Your task to perform on an android device: change your default location settings in chrome Image 0: 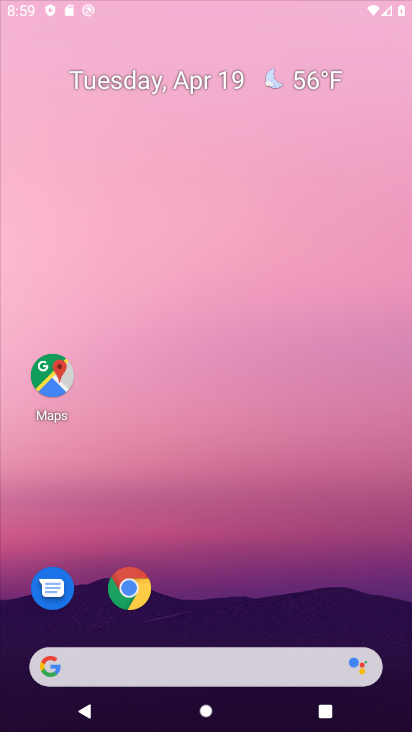
Step 0: drag from (295, 36) to (272, 63)
Your task to perform on an android device: change your default location settings in chrome Image 1: 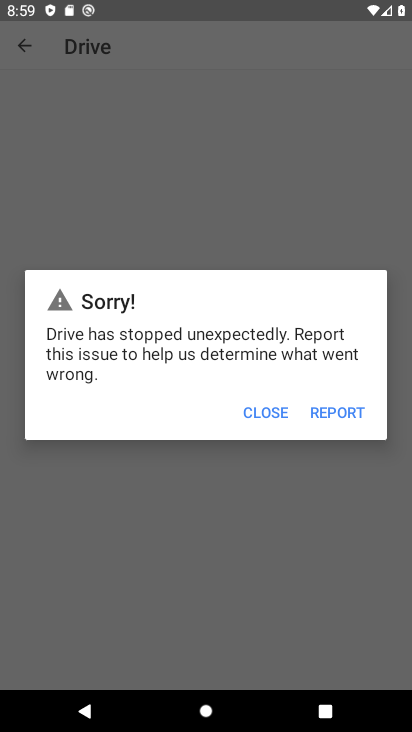
Step 1: press home button
Your task to perform on an android device: change your default location settings in chrome Image 2: 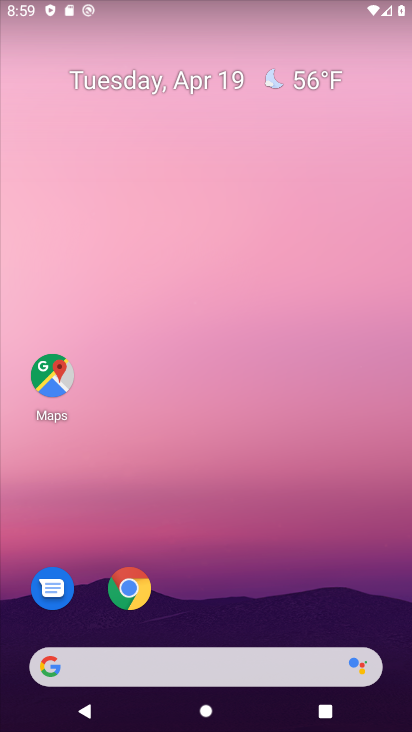
Step 2: click (129, 591)
Your task to perform on an android device: change your default location settings in chrome Image 3: 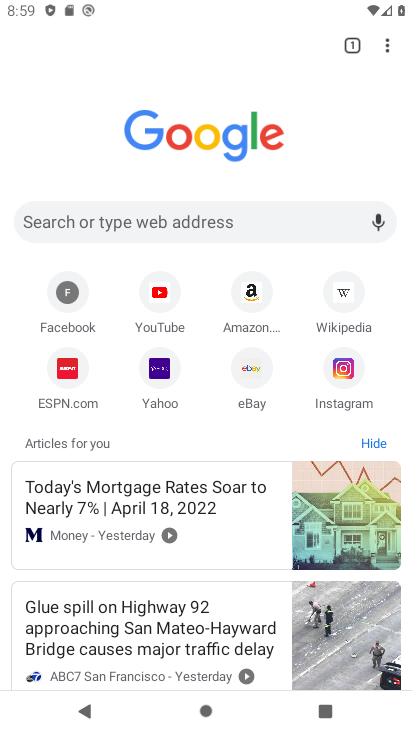
Step 3: click (388, 48)
Your task to perform on an android device: change your default location settings in chrome Image 4: 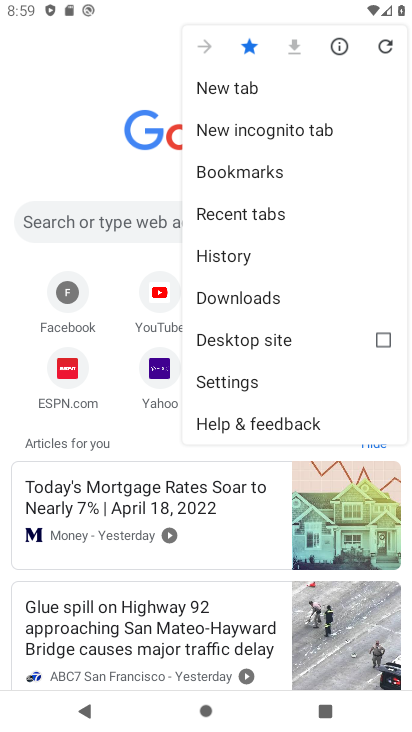
Step 4: click (231, 383)
Your task to perform on an android device: change your default location settings in chrome Image 5: 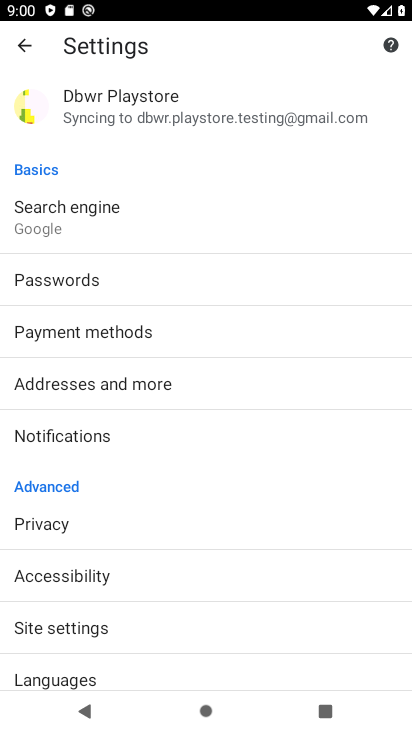
Step 5: click (64, 628)
Your task to perform on an android device: change your default location settings in chrome Image 6: 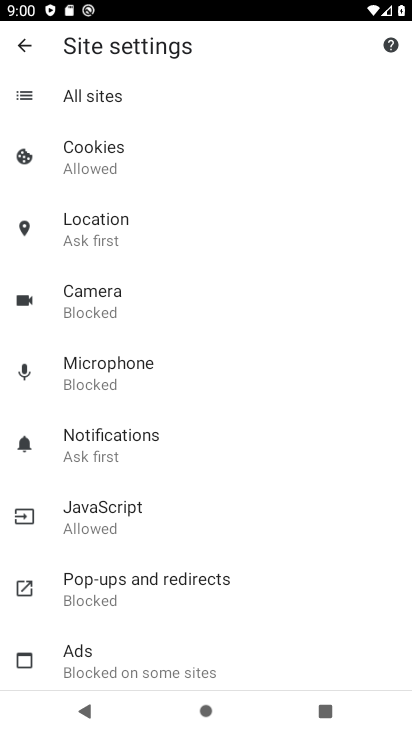
Step 6: click (98, 232)
Your task to perform on an android device: change your default location settings in chrome Image 7: 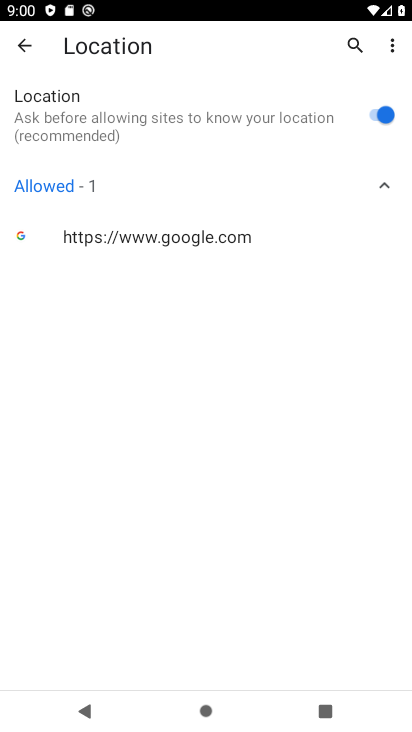
Step 7: click (383, 116)
Your task to perform on an android device: change your default location settings in chrome Image 8: 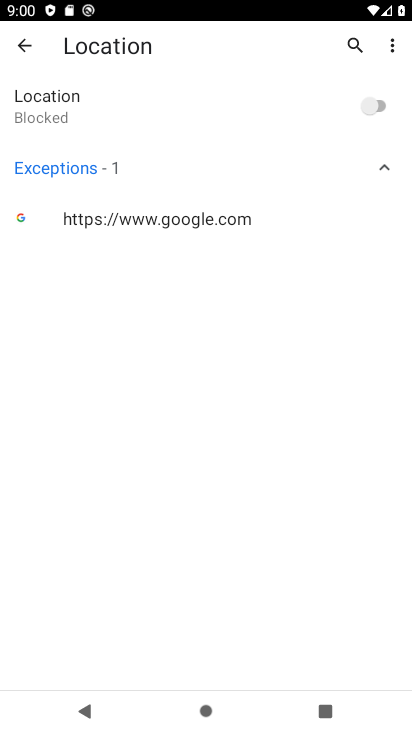
Step 8: task complete